Your task to perform on an android device: toggle priority inbox in the gmail app Image 0: 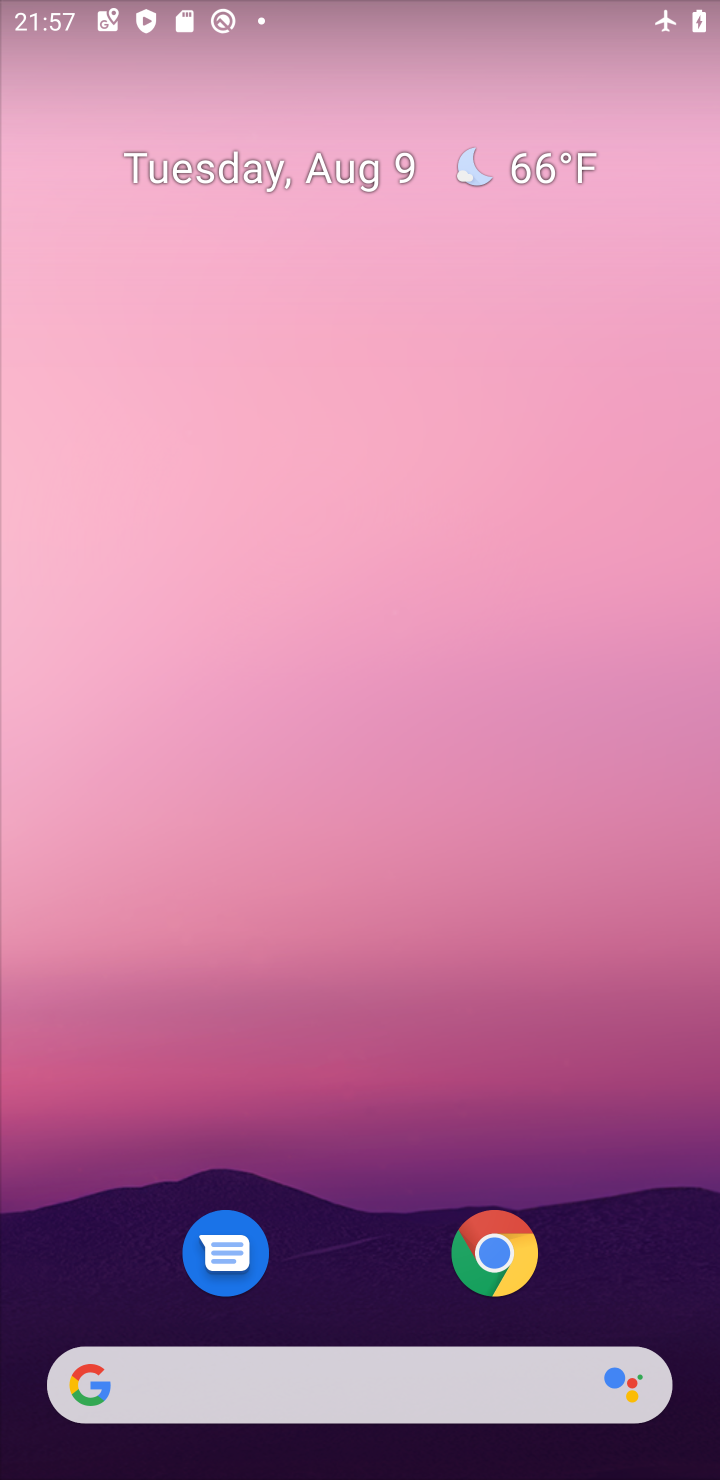
Step 0: drag from (422, 711) to (528, 114)
Your task to perform on an android device: toggle priority inbox in the gmail app Image 1: 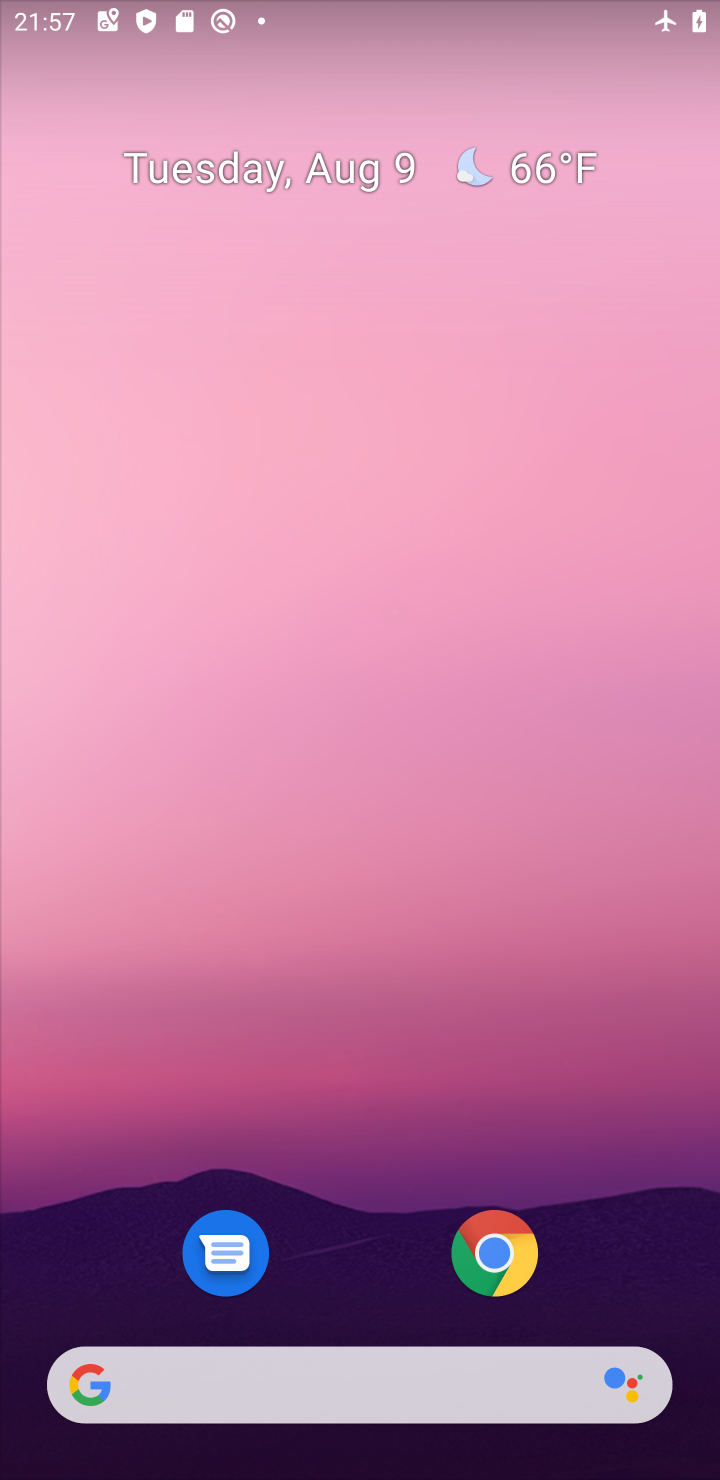
Step 1: drag from (389, 1041) to (508, 124)
Your task to perform on an android device: toggle priority inbox in the gmail app Image 2: 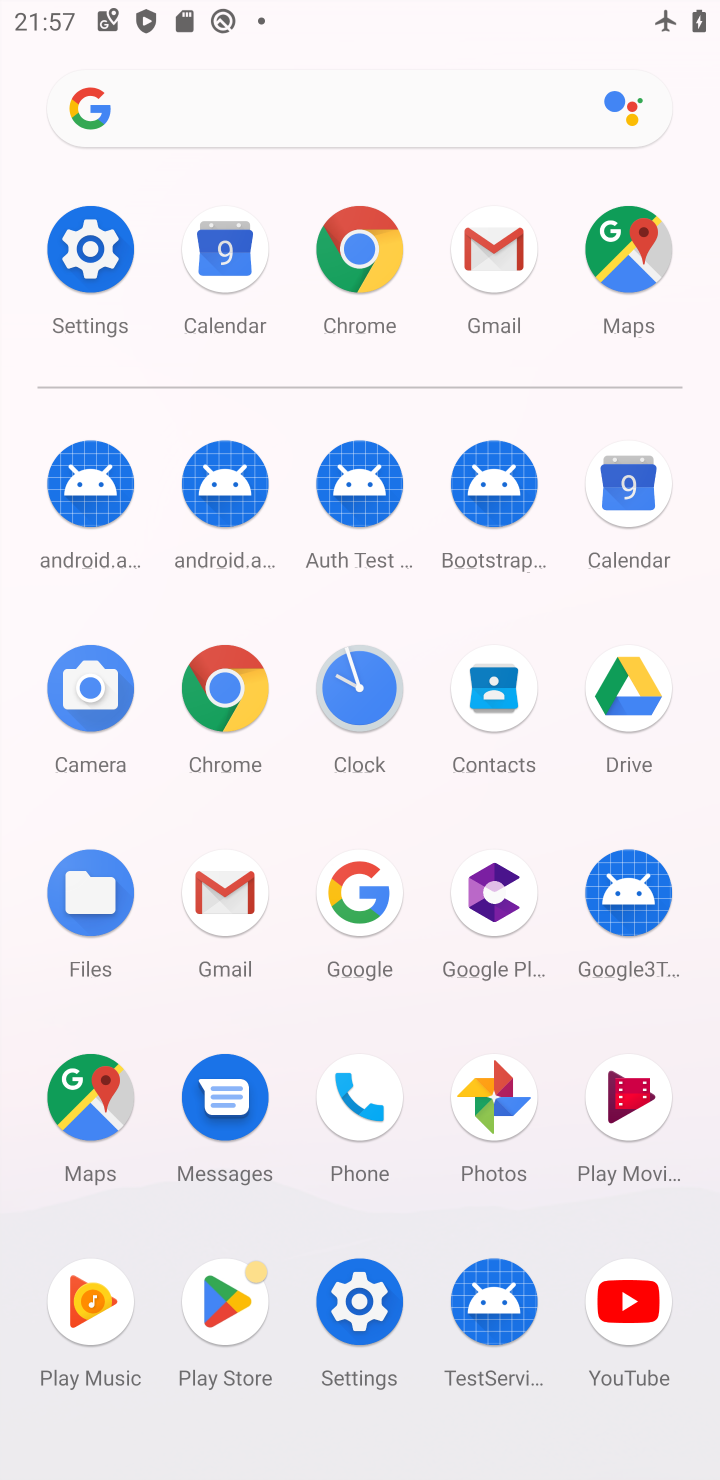
Step 2: click (216, 893)
Your task to perform on an android device: toggle priority inbox in the gmail app Image 3: 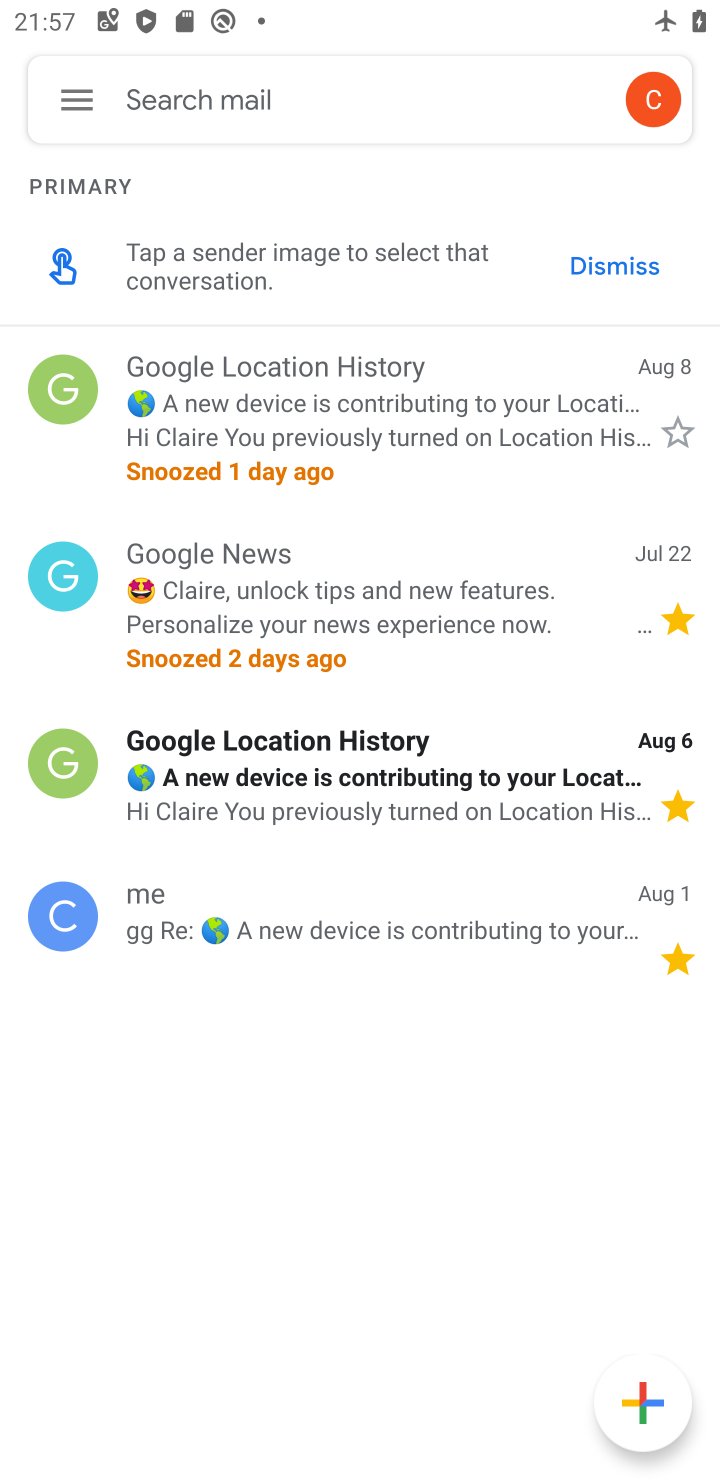
Step 3: click (65, 84)
Your task to perform on an android device: toggle priority inbox in the gmail app Image 4: 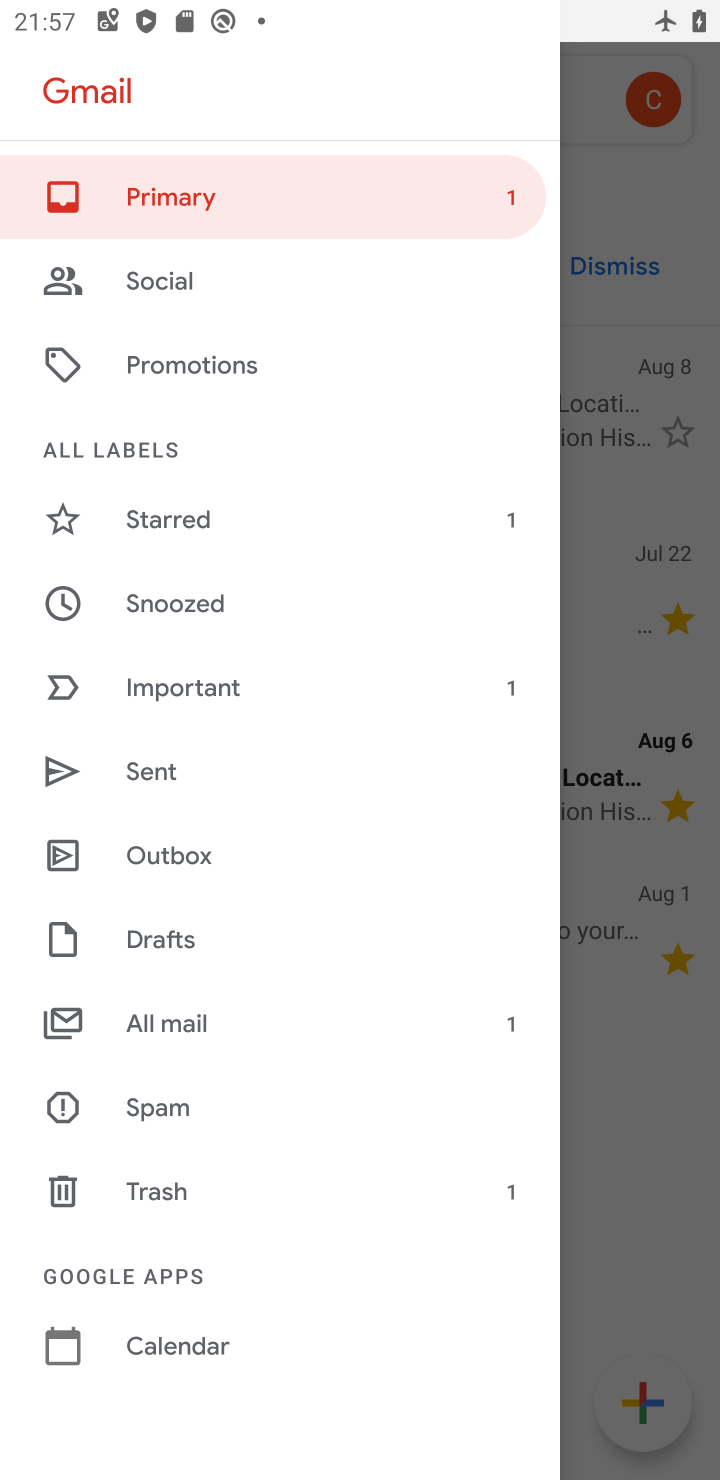
Step 4: drag from (225, 1307) to (443, 556)
Your task to perform on an android device: toggle priority inbox in the gmail app Image 5: 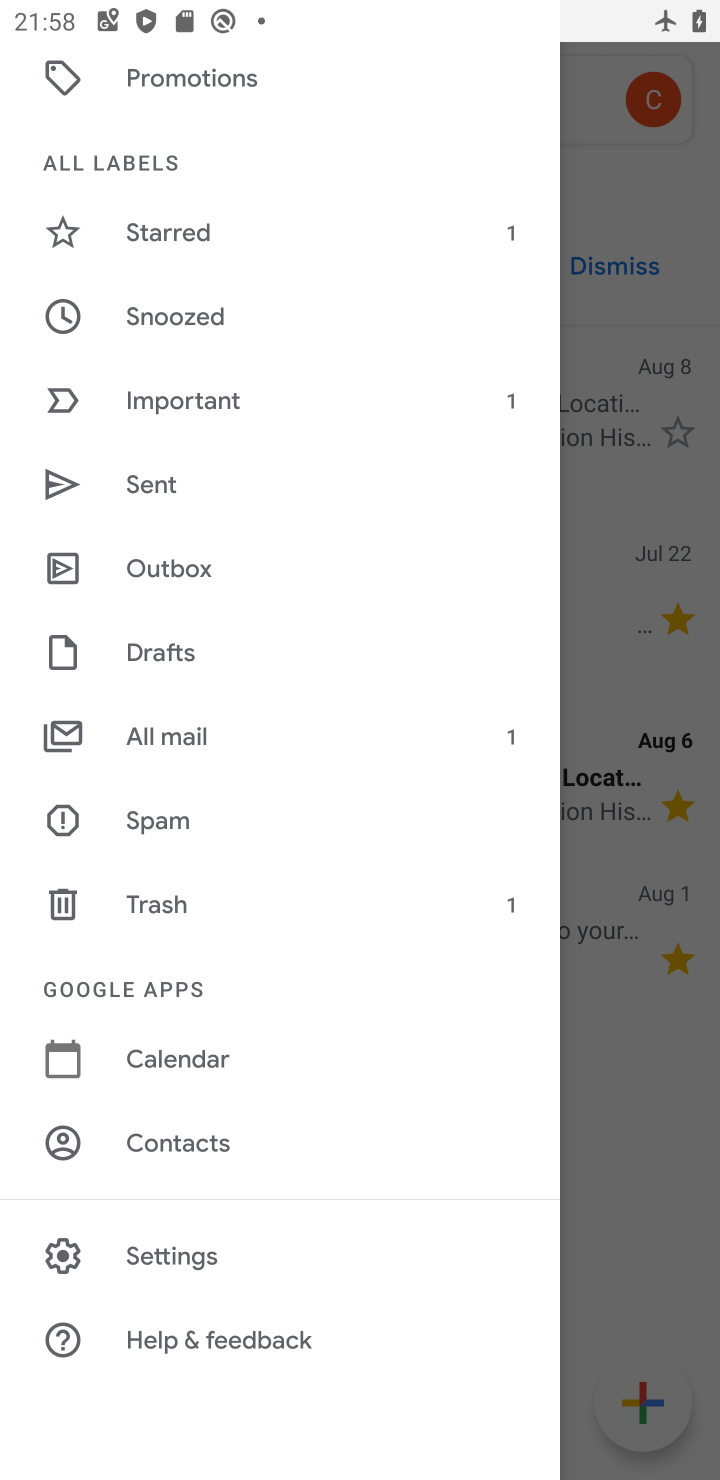
Step 5: click (182, 1246)
Your task to perform on an android device: toggle priority inbox in the gmail app Image 6: 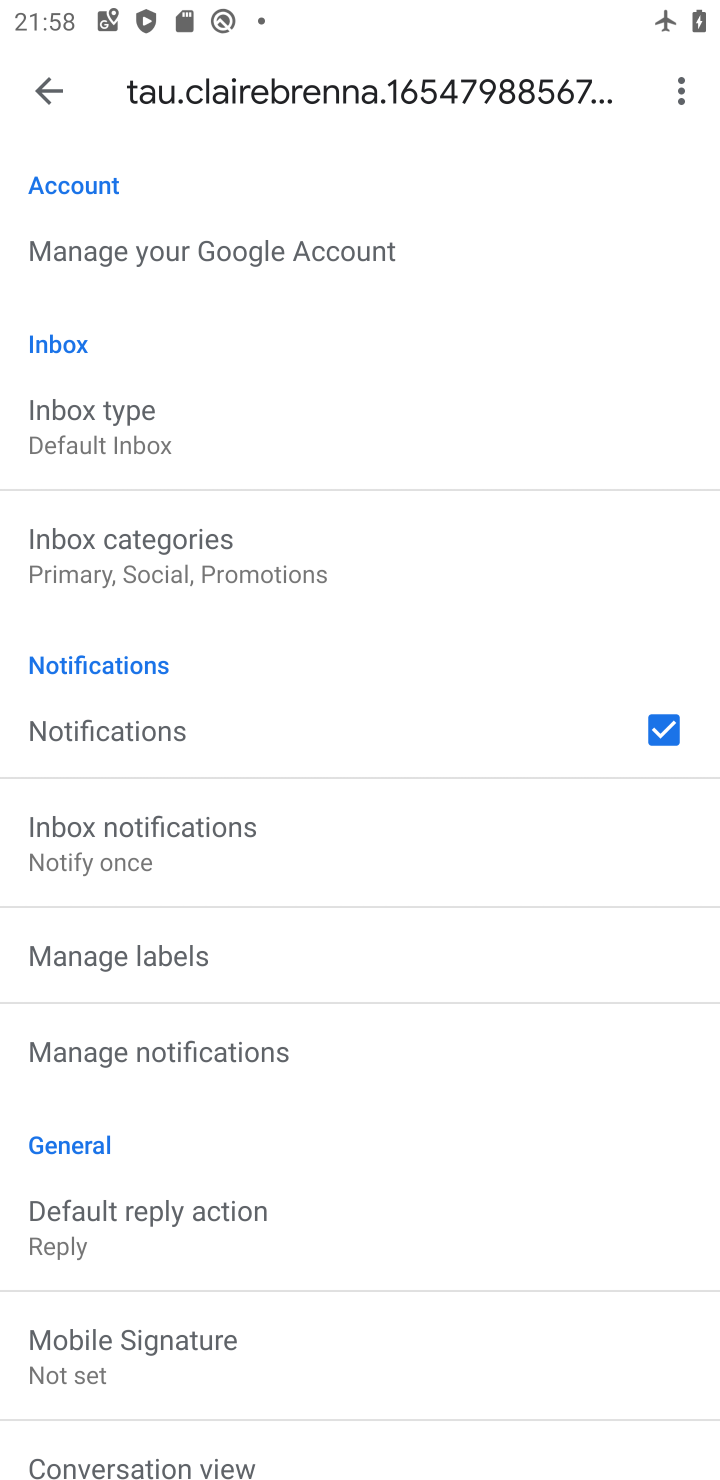
Step 6: click (133, 407)
Your task to perform on an android device: toggle priority inbox in the gmail app Image 7: 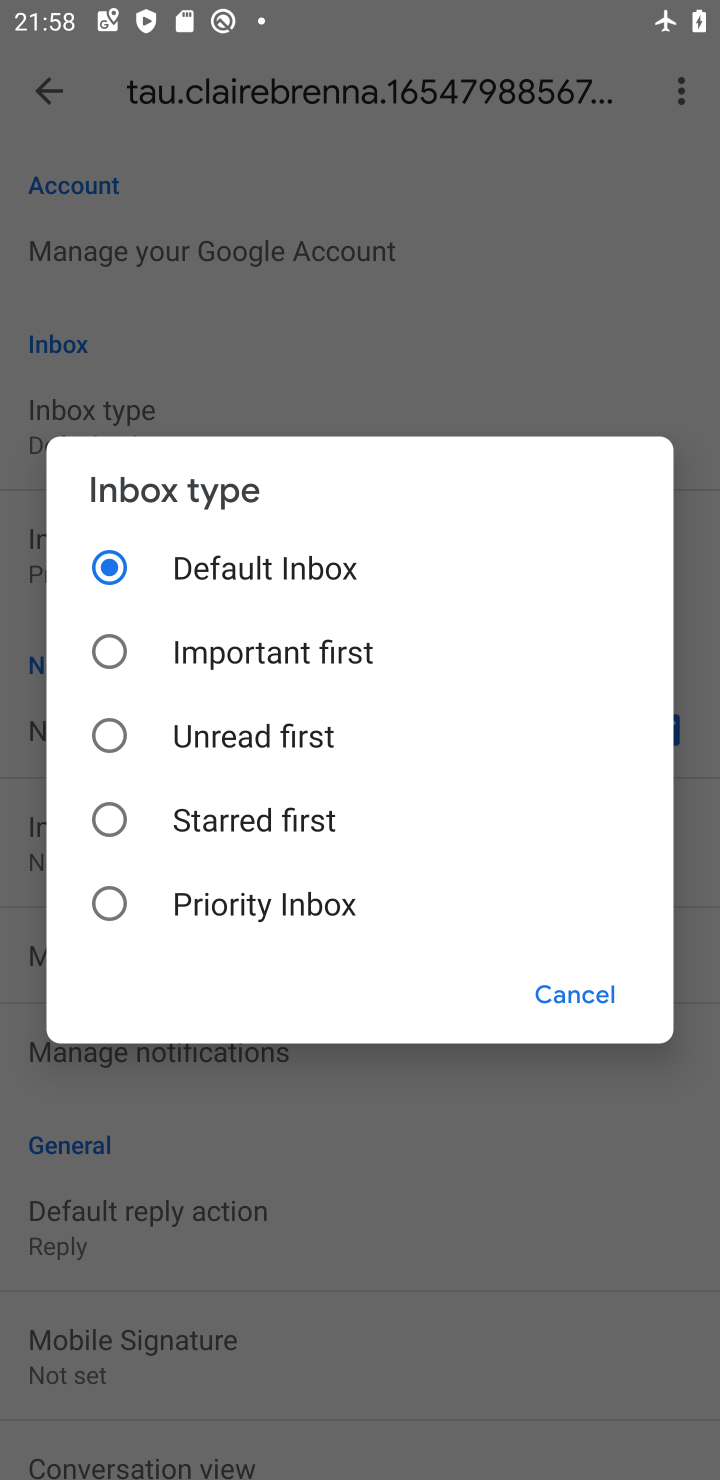
Step 7: click (286, 912)
Your task to perform on an android device: toggle priority inbox in the gmail app Image 8: 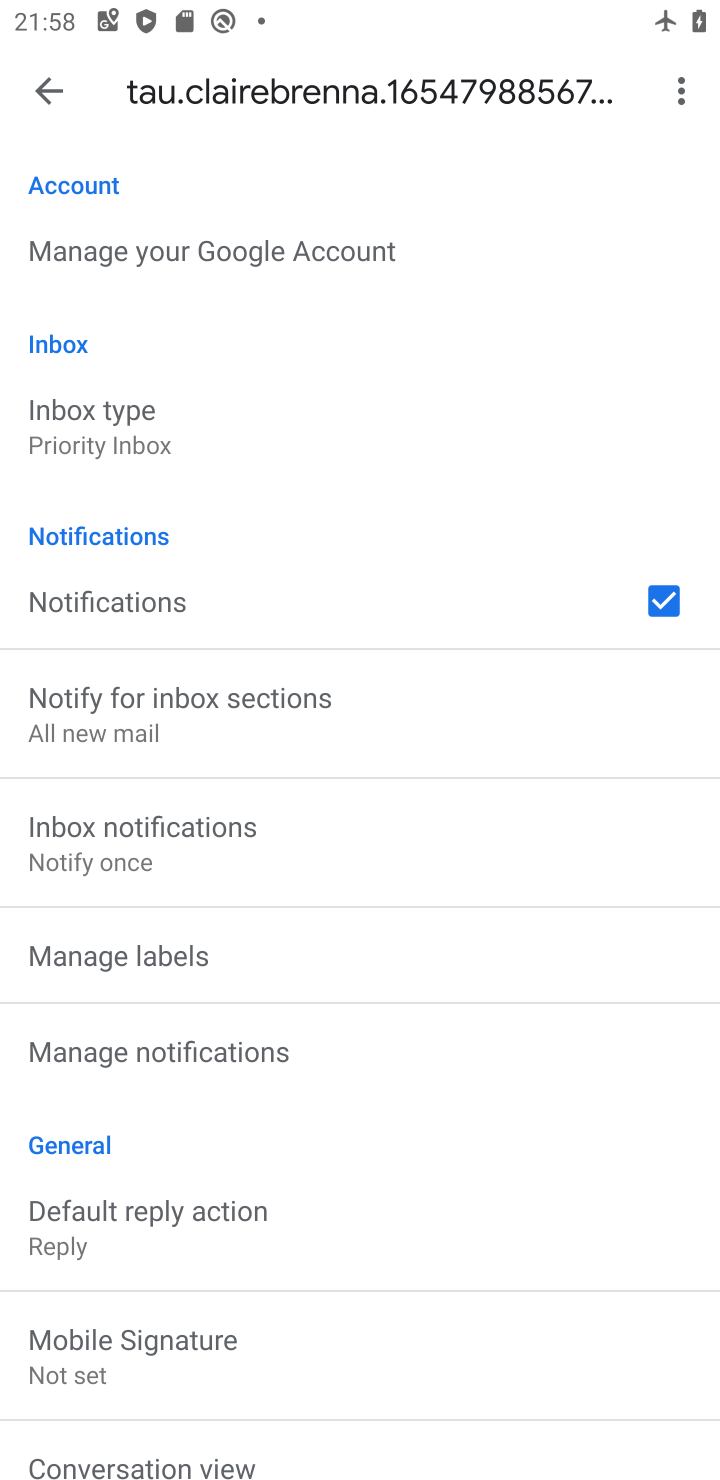
Step 8: task complete